Your task to perform on an android device: turn off notifications in google photos Image 0: 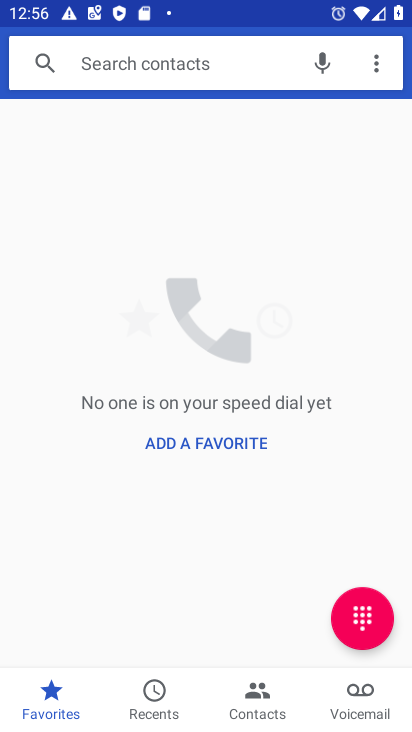
Step 0: press home button
Your task to perform on an android device: turn off notifications in google photos Image 1: 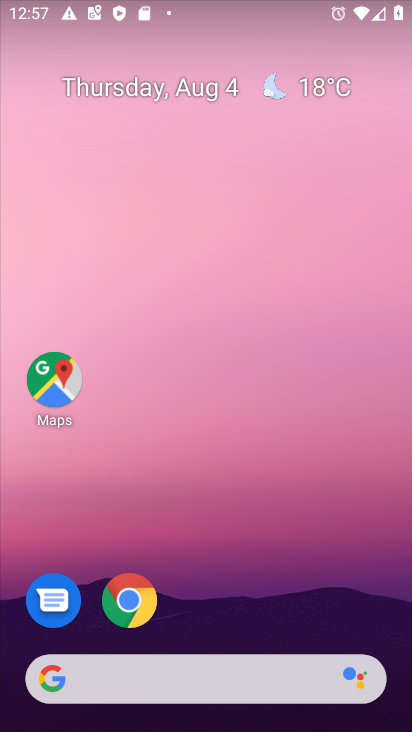
Step 1: drag from (144, 686) to (301, 148)
Your task to perform on an android device: turn off notifications in google photos Image 2: 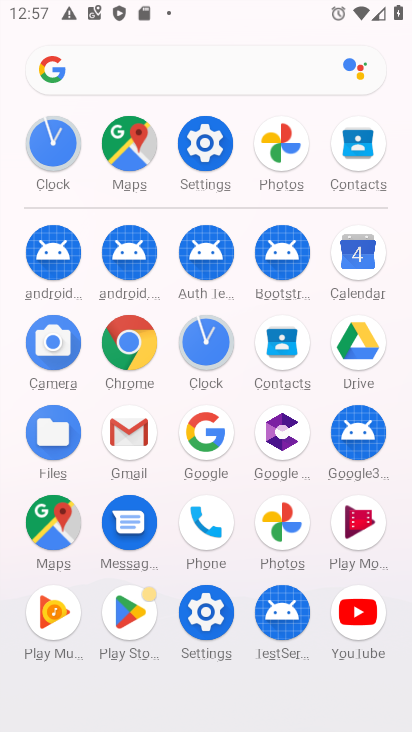
Step 2: click (284, 524)
Your task to perform on an android device: turn off notifications in google photos Image 3: 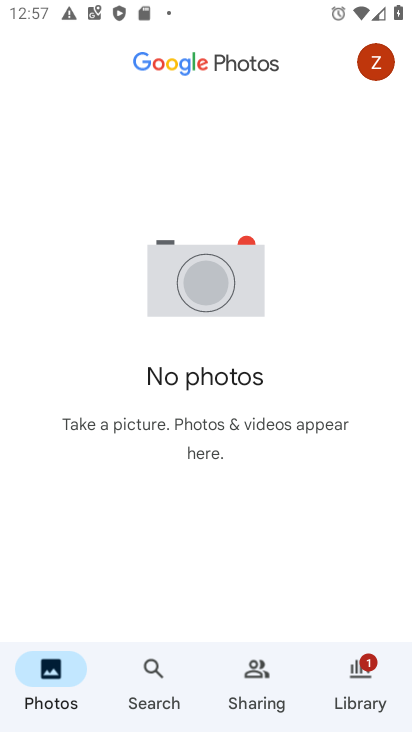
Step 3: click (372, 68)
Your task to perform on an android device: turn off notifications in google photos Image 4: 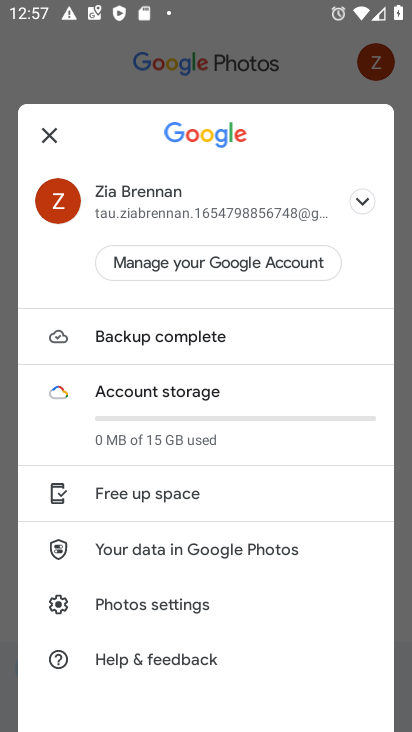
Step 4: click (183, 601)
Your task to perform on an android device: turn off notifications in google photos Image 5: 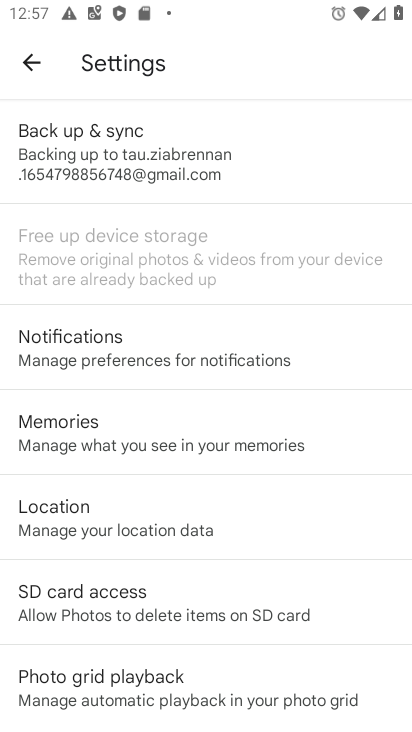
Step 5: click (163, 353)
Your task to perform on an android device: turn off notifications in google photos Image 6: 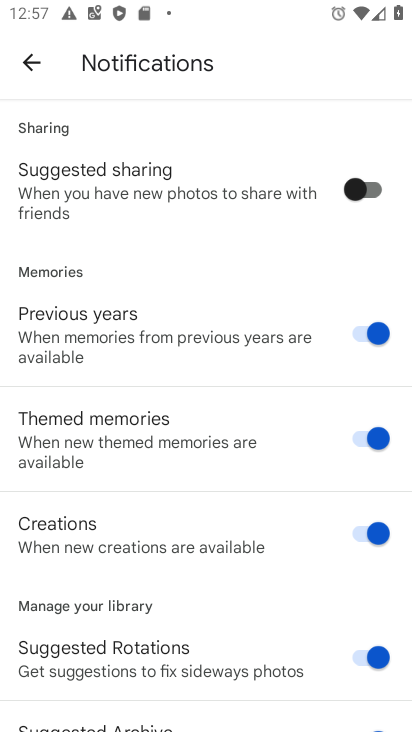
Step 6: drag from (205, 654) to (248, 31)
Your task to perform on an android device: turn off notifications in google photos Image 7: 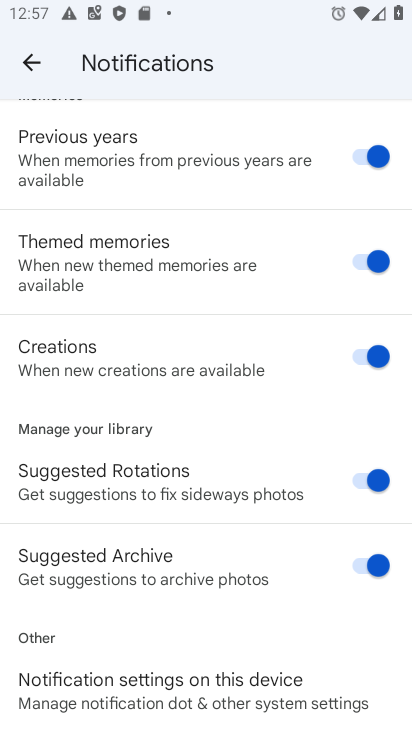
Step 7: drag from (170, 631) to (280, 92)
Your task to perform on an android device: turn off notifications in google photos Image 8: 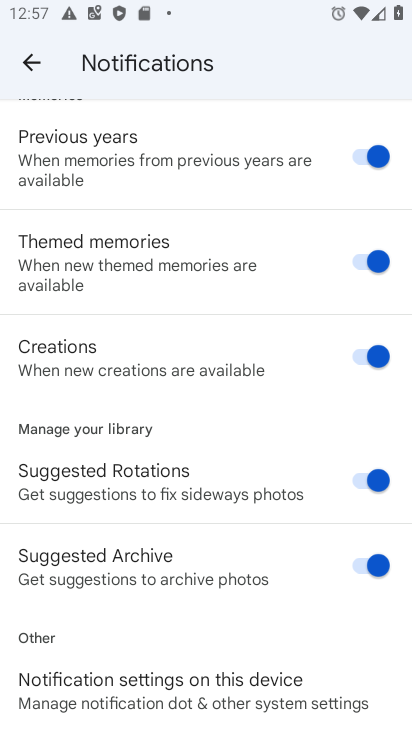
Step 8: click (169, 697)
Your task to perform on an android device: turn off notifications in google photos Image 9: 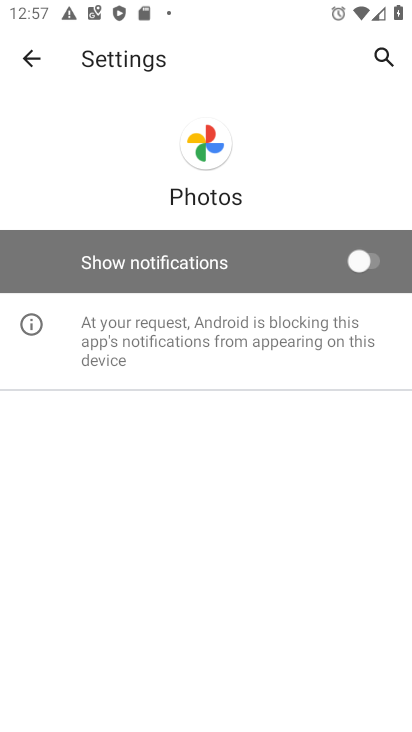
Step 9: task complete